Your task to perform on an android device: open device folders in google photos Image 0: 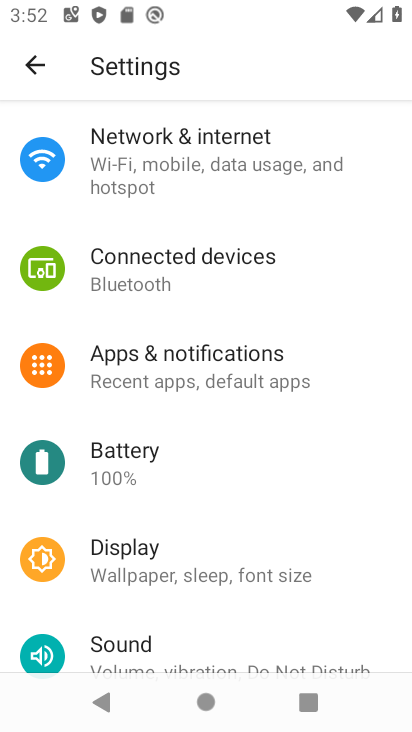
Step 0: press home button
Your task to perform on an android device: open device folders in google photos Image 1: 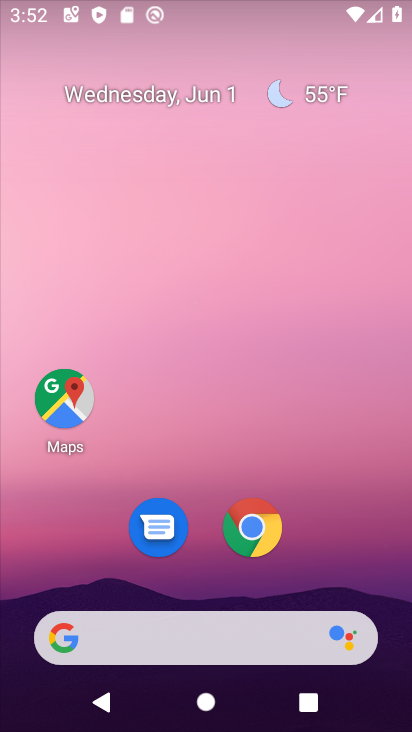
Step 1: drag from (333, 533) to (332, 38)
Your task to perform on an android device: open device folders in google photos Image 2: 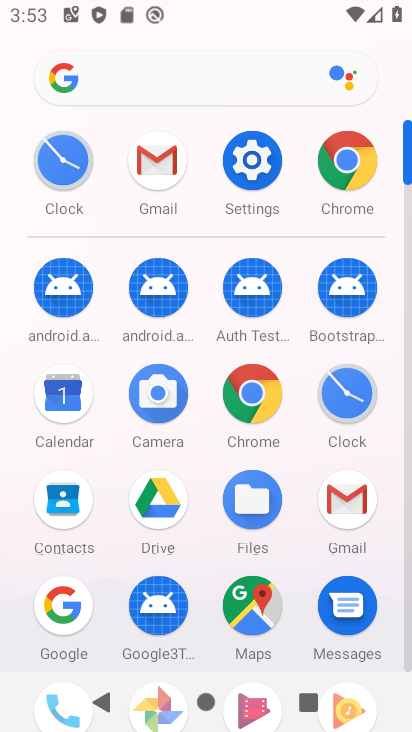
Step 2: drag from (194, 236) to (219, 15)
Your task to perform on an android device: open device folders in google photos Image 3: 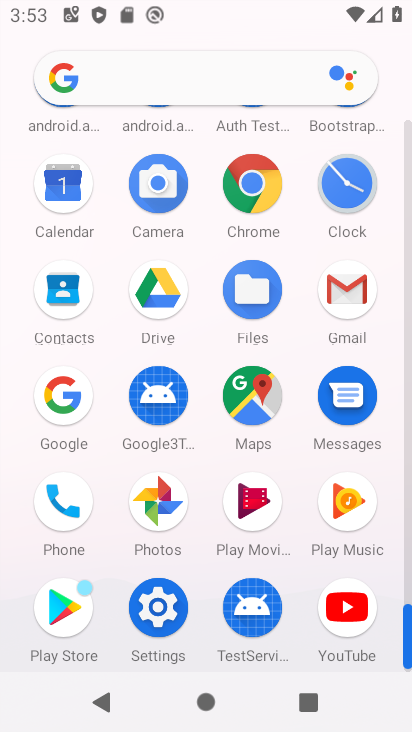
Step 3: click (157, 505)
Your task to perform on an android device: open device folders in google photos Image 4: 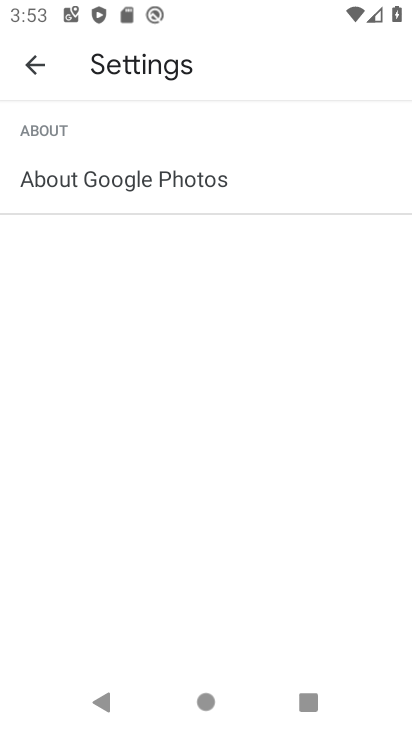
Step 4: click (32, 73)
Your task to perform on an android device: open device folders in google photos Image 5: 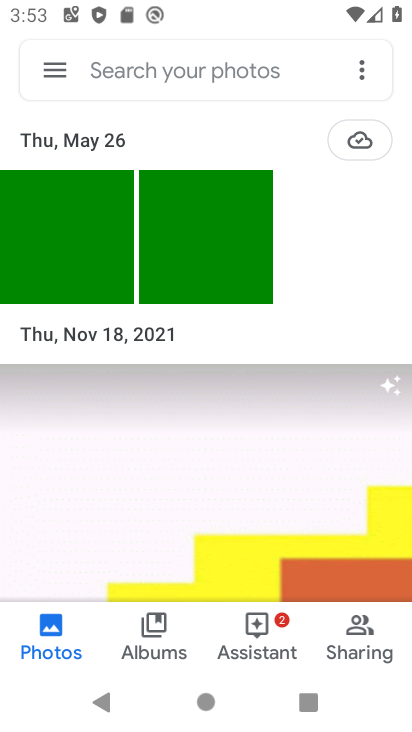
Step 5: click (45, 70)
Your task to perform on an android device: open device folders in google photos Image 6: 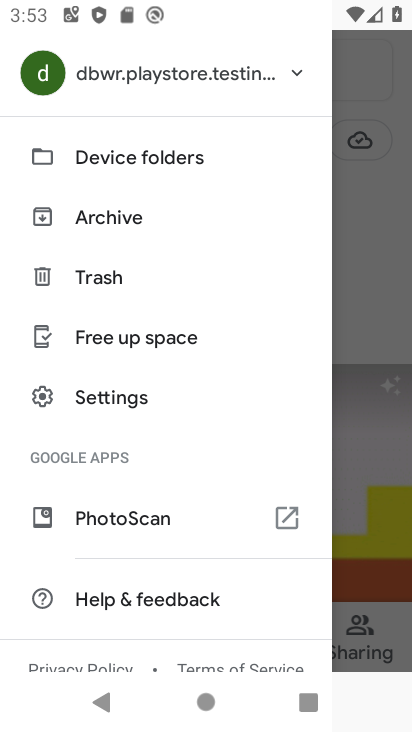
Step 6: click (116, 157)
Your task to perform on an android device: open device folders in google photos Image 7: 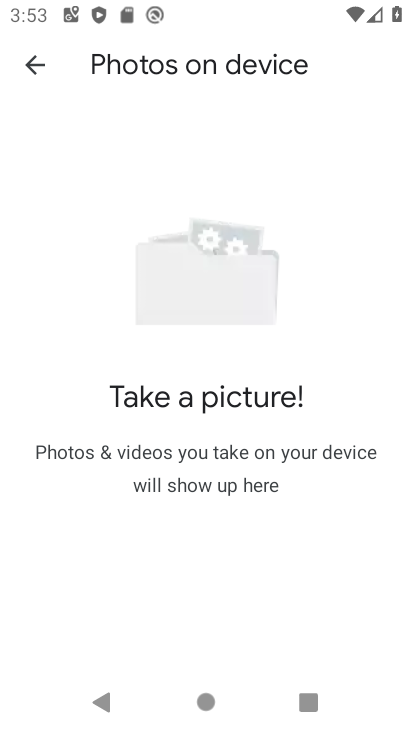
Step 7: task complete